Your task to perform on an android device: Go to Google maps Image 0: 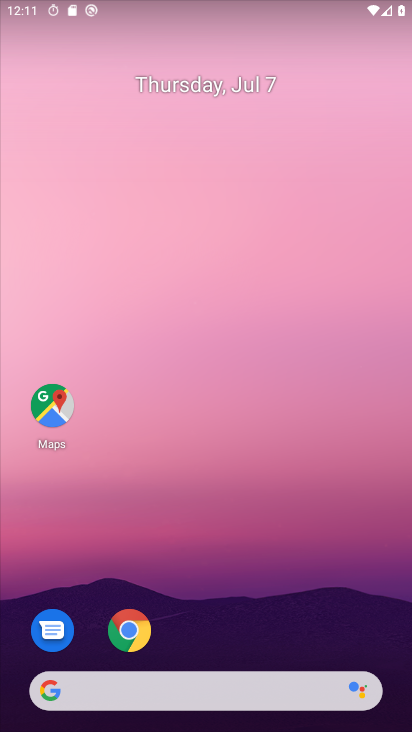
Step 0: drag from (253, 642) to (241, 56)
Your task to perform on an android device: Go to Google maps Image 1: 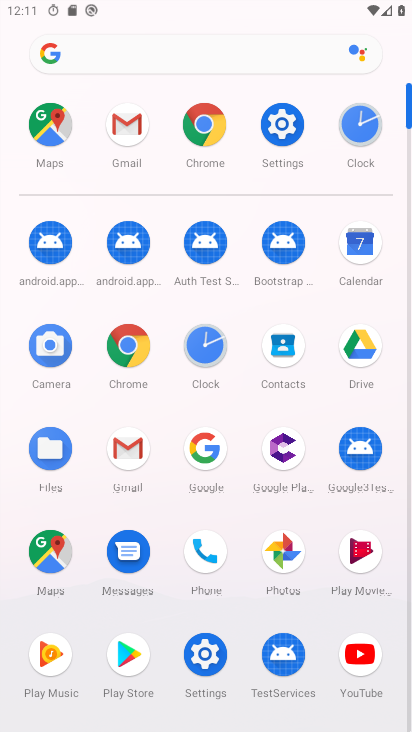
Step 1: click (50, 556)
Your task to perform on an android device: Go to Google maps Image 2: 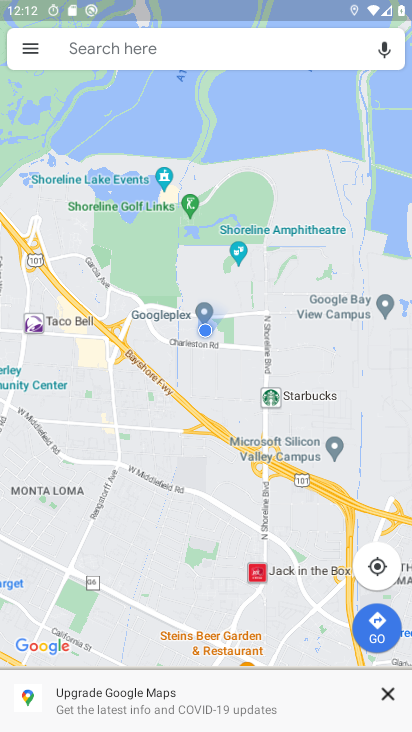
Step 2: click (390, 688)
Your task to perform on an android device: Go to Google maps Image 3: 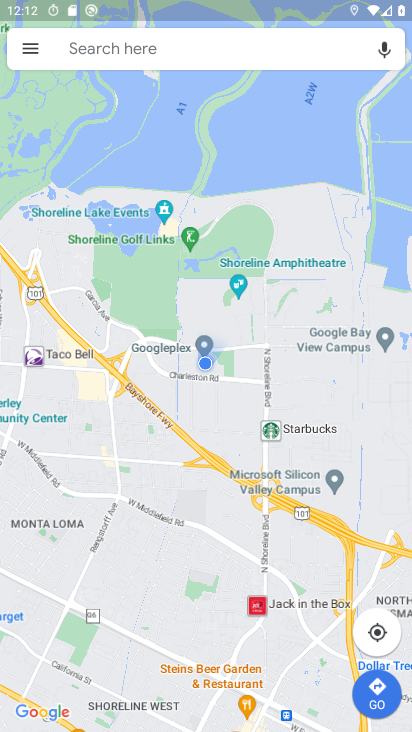
Step 3: task complete